Your task to perform on an android device: See recent photos Image 0: 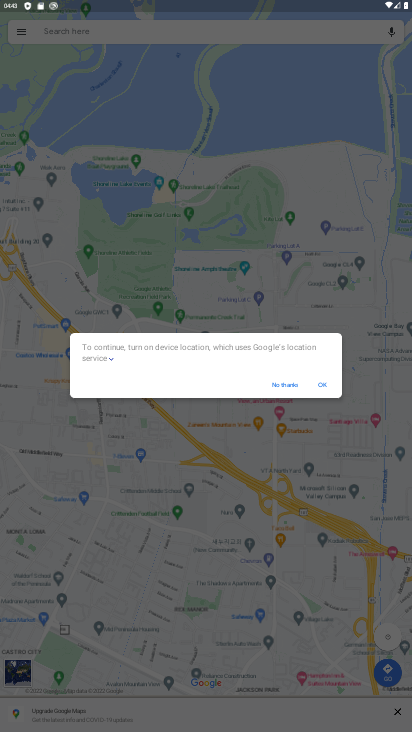
Step 0: press home button
Your task to perform on an android device: See recent photos Image 1: 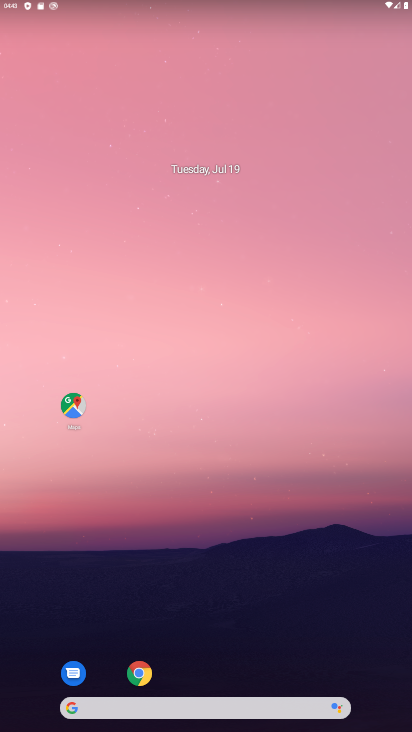
Step 1: click (151, 705)
Your task to perform on an android device: See recent photos Image 2: 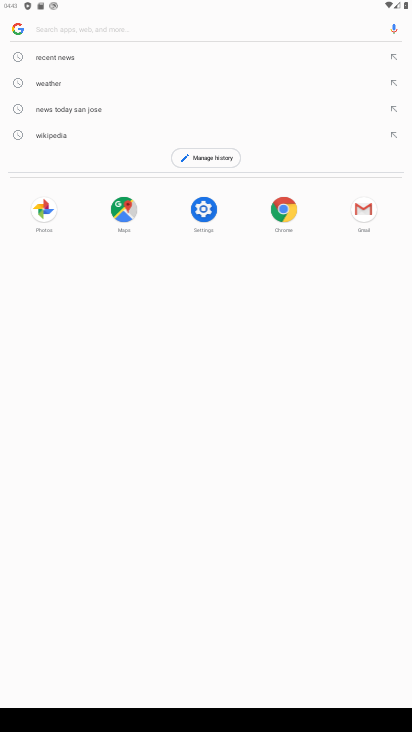
Step 2: click (62, 53)
Your task to perform on an android device: See recent photos Image 3: 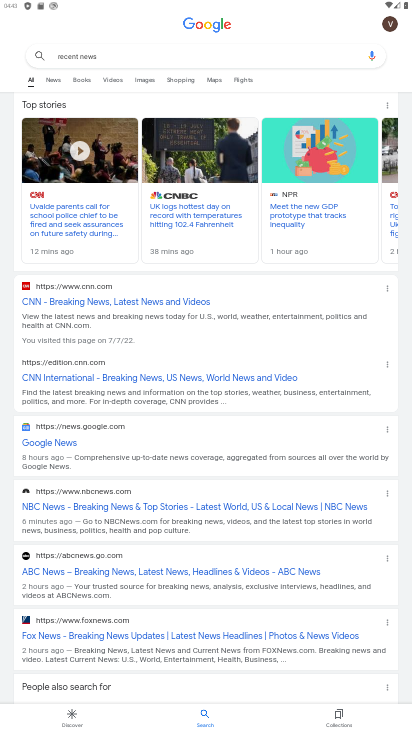
Step 3: task complete